Your task to perform on an android device: move a message to another label in the gmail app Image 0: 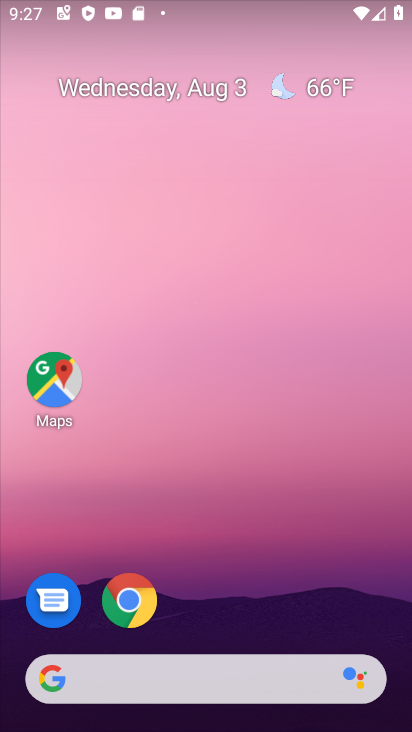
Step 0: drag from (242, 613) to (174, 6)
Your task to perform on an android device: move a message to another label in the gmail app Image 1: 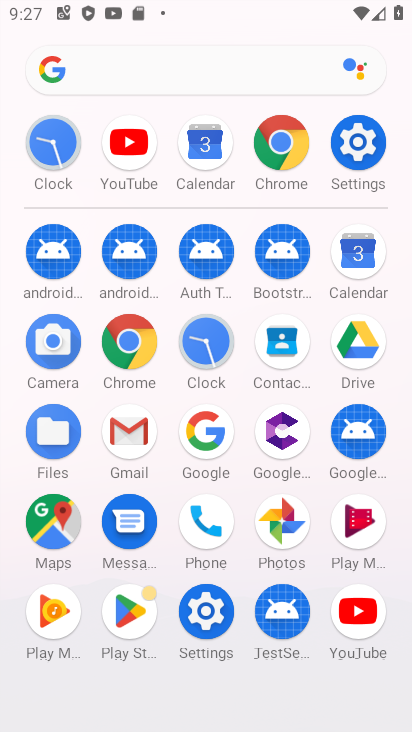
Step 1: click (134, 442)
Your task to perform on an android device: move a message to another label in the gmail app Image 2: 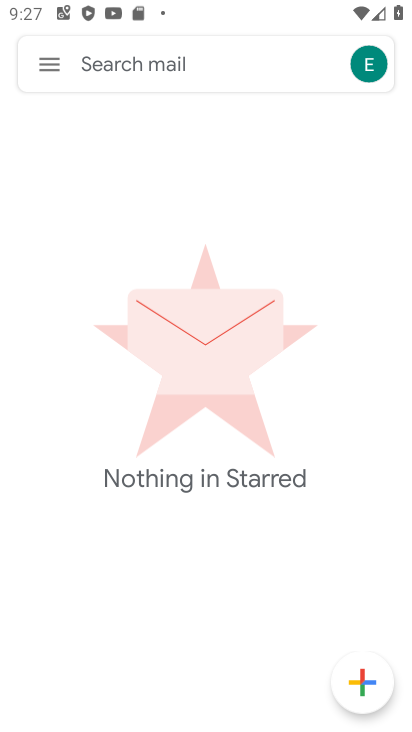
Step 2: click (41, 65)
Your task to perform on an android device: move a message to another label in the gmail app Image 3: 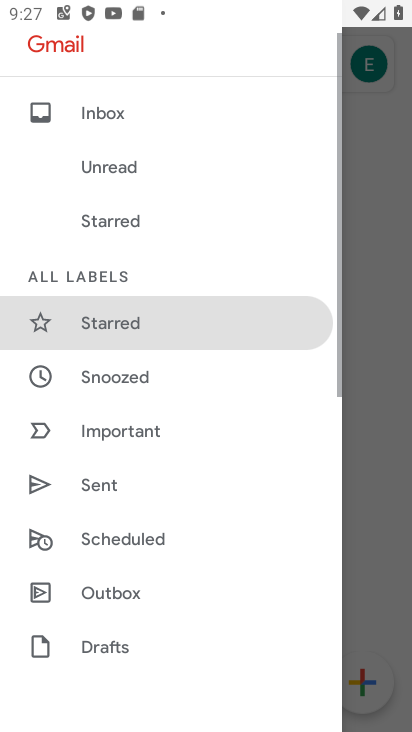
Step 3: click (92, 108)
Your task to perform on an android device: move a message to another label in the gmail app Image 4: 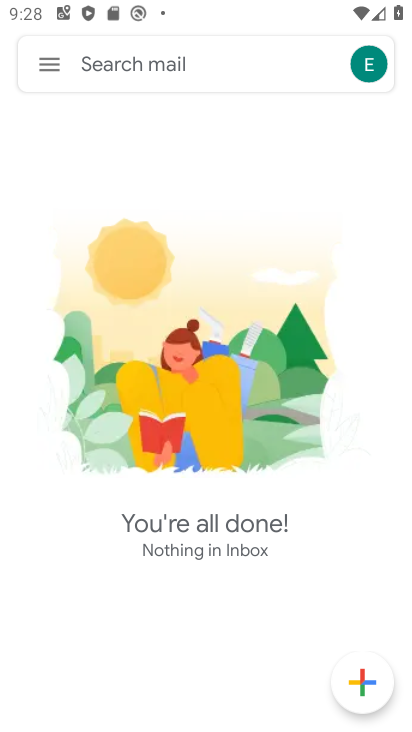
Step 4: task complete